Your task to perform on an android device: Open the phone app and click the voicemail tab. Image 0: 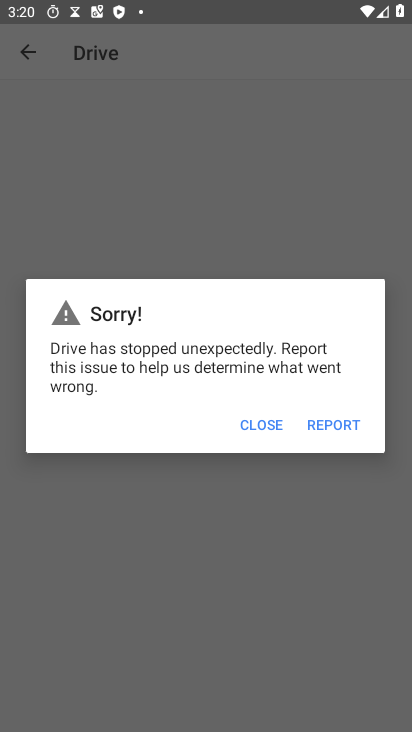
Step 0: press home button
Your task to perform on an android device: Open the phone app and click the voicemail tab. Image 1: 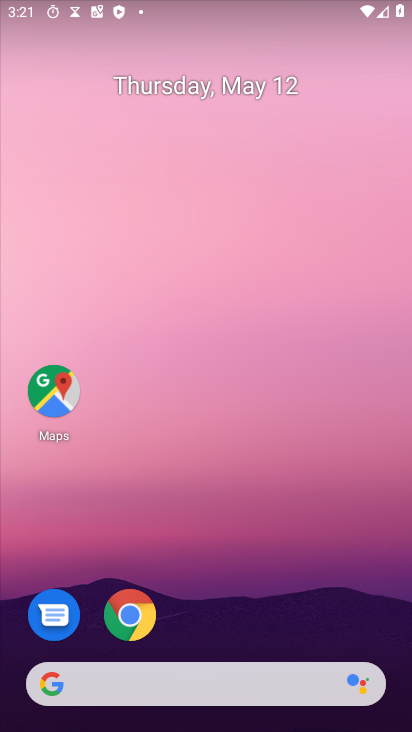
Step 1: drag from (32, 605) to (305, 75)
Your task to perform on an android device: Open the phone app and click the voicemail tab. Image 2: 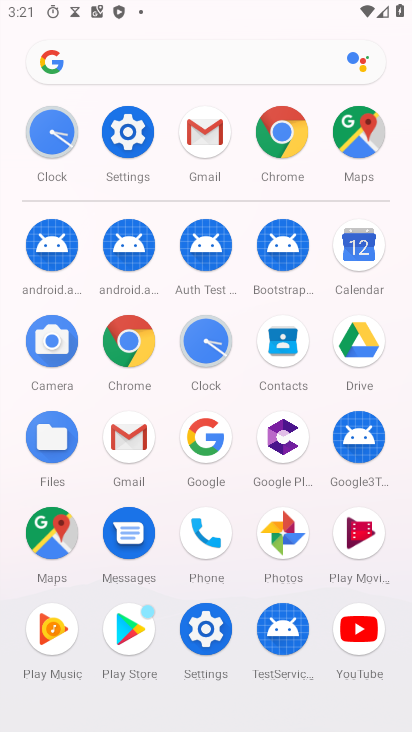
Step 2: click (211, 544)
Your task to perform on an android device: Open the phone app and click the voicemail tab. Image 3: 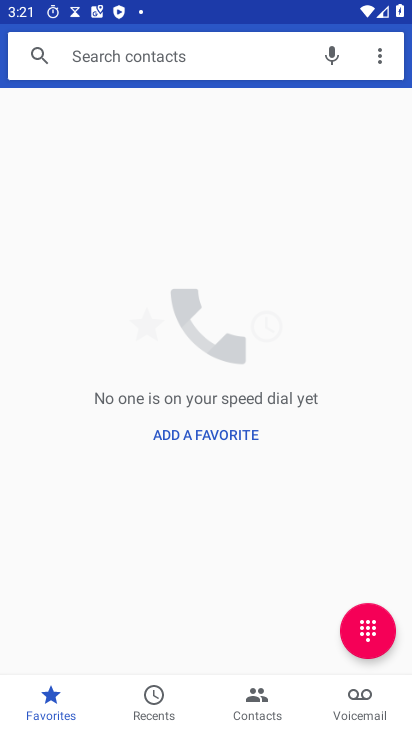
Step 3: click (369, 708)
Your task to perform on an android device: Open the phone app and click the voicemail tab. Image 4: 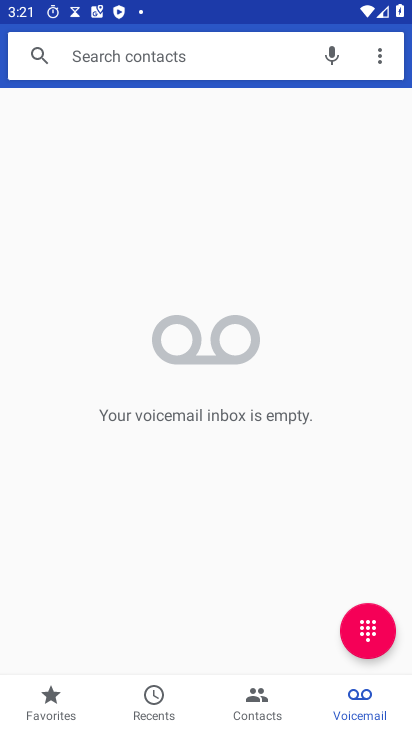
Step 4: task complete